Your task to perform on an android device: Open accessibility settings Image 0: 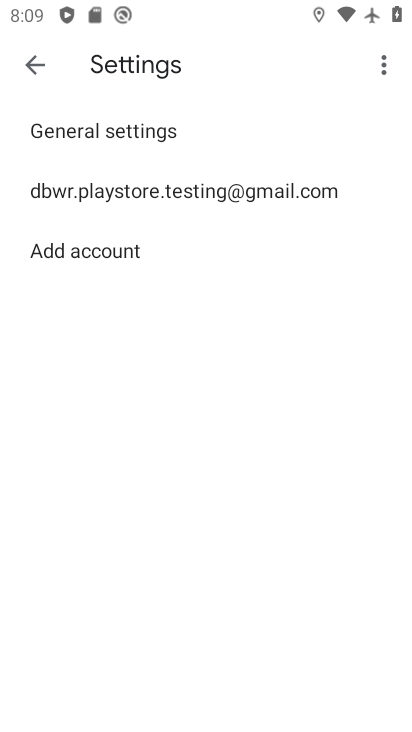
Step 0: press home button
Your task to perform on an android device: Open accessibility settings Image 1: 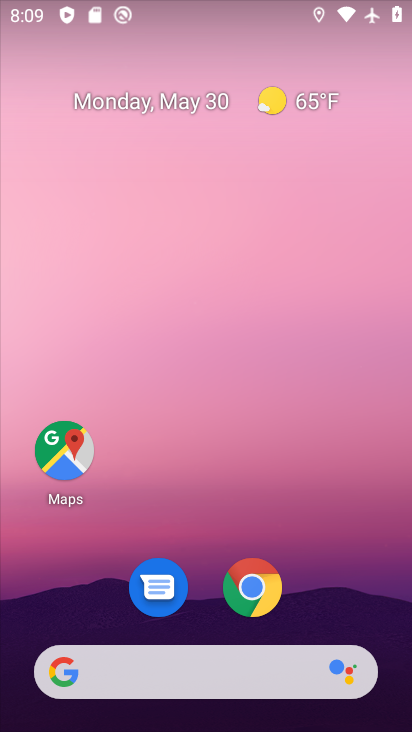
Step 1: drag from (181, 680) to (356, 31)
Your task to perform on an android device: Open accessibility settings Image 2: 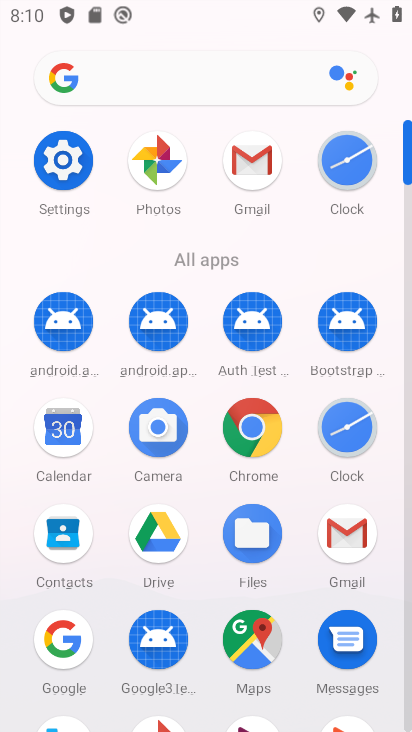
Step 2: click (61, 169)
Your task to perform on an android device: Open accessibility settings Image 3: 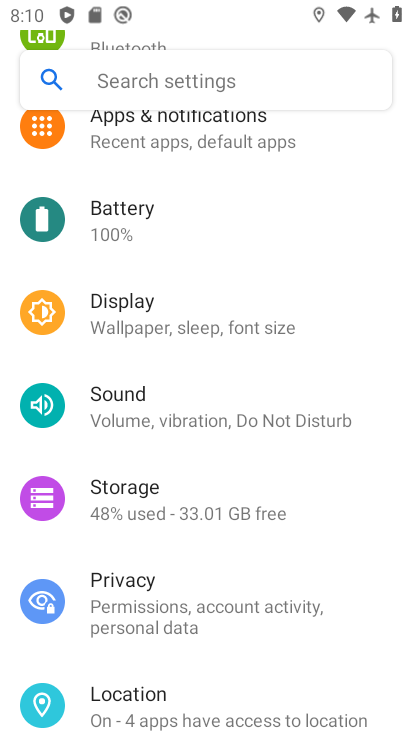
Step 3: drag from (258, 652) to (322, 195)
Your task to perform on an android device: Open accessibility settings Image 4: 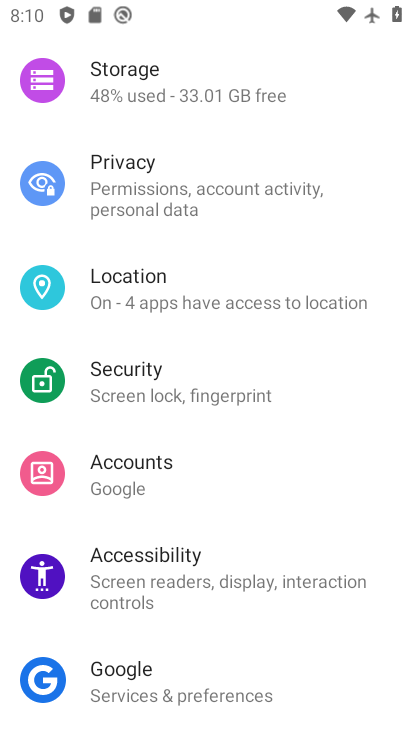
Step 4: click (161, 571)
Your task to perform on an android device: Open accessibility settings Image 5: 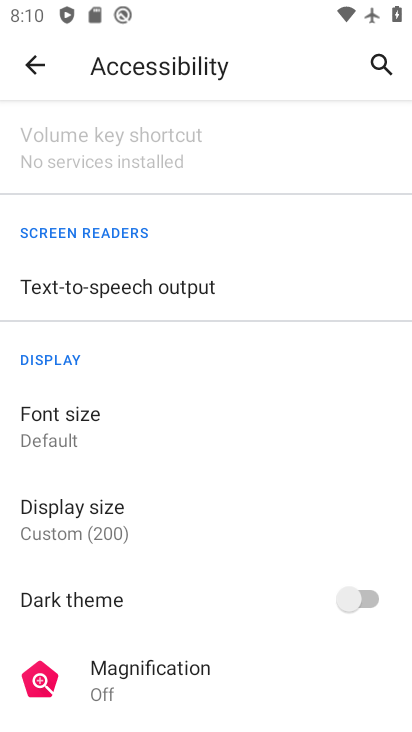
Step 5: task complete